Your task to perform on an android device: turn off notifications settings in the gmail app Image 0: 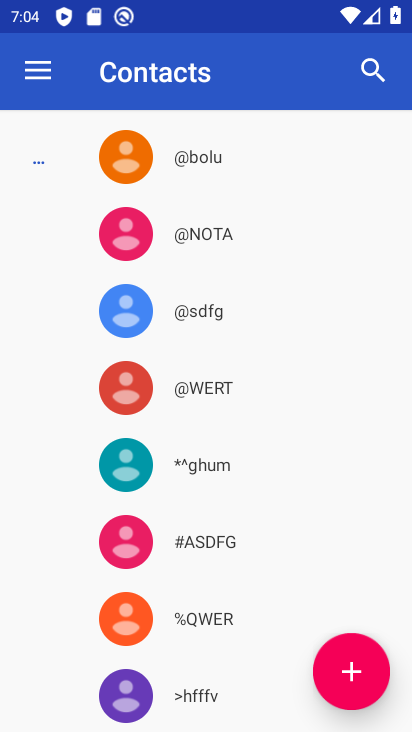
Step 0: press home button
Your task to perform on an android device: turn off notifications settings in the gmail app Image 1: 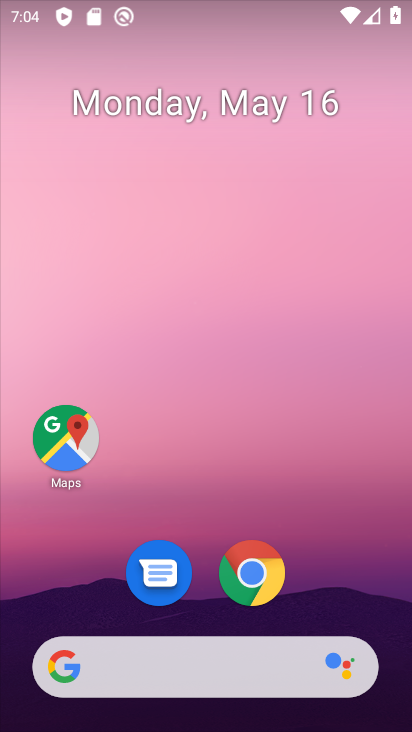
Step 1: drag from (339, 607) to (281, 2)
Your task to perform on an android device: turn off notifications settings in the gmail app Image 2: 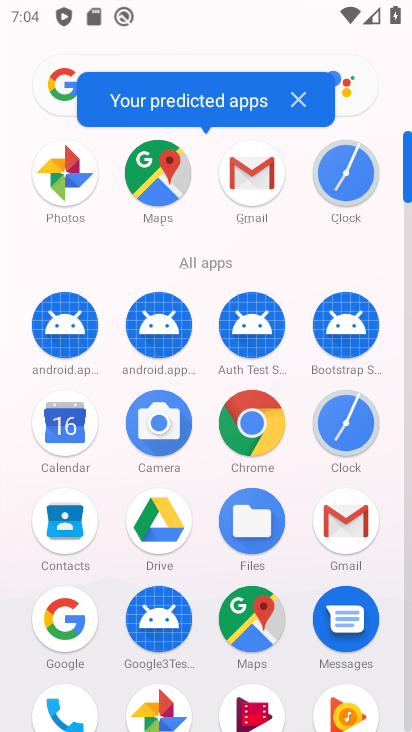
Step 2: click (258, 184)
Your task to perform on an android device: turn off notifications settings in the gmail app Image 3: 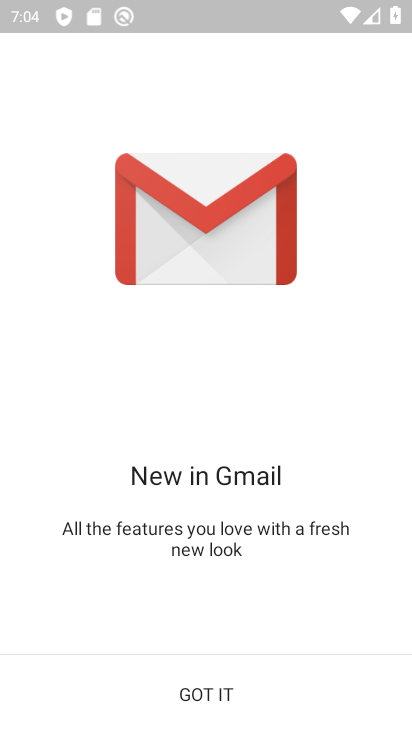
Step 3: click (237, 711)
Your task to perform on an android device: turn off notifications settings in the gmail app Image 4: 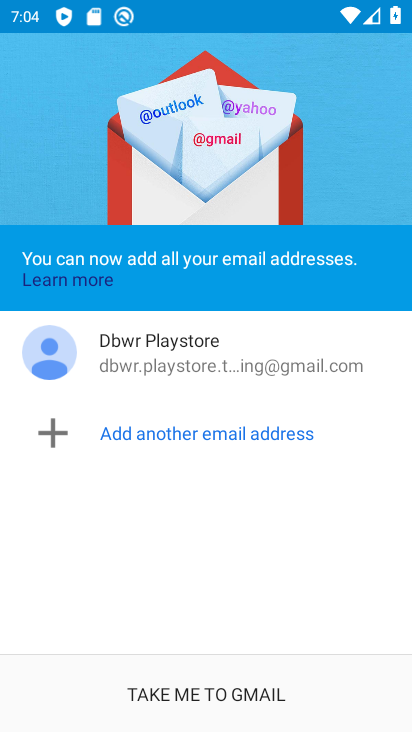
Step 4: click (237, 711)
Your task to perform on an android device: turn off notifications settings in the gmail app Image 5: 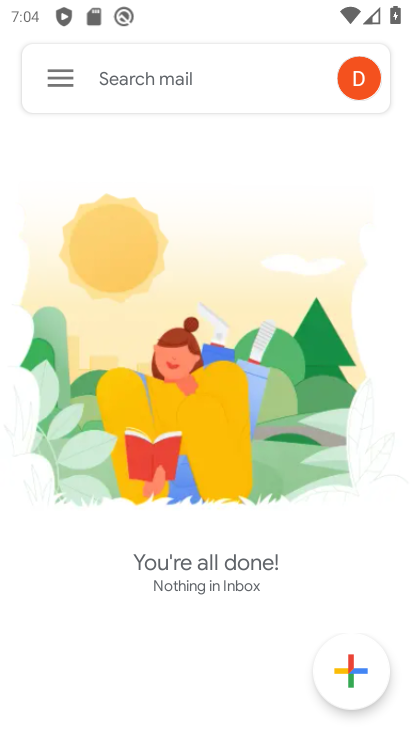
Step 5: click (39, 88)
Your task to perform on an android device: turn off notifications settings in the gmail app Image 6: 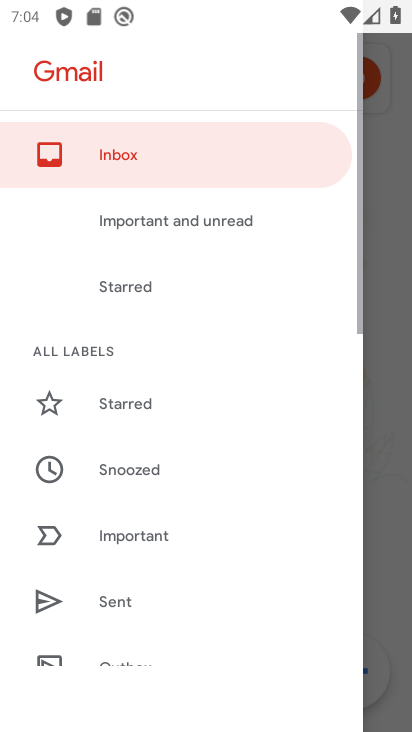
Step 6: drag from (171, 595) to (208, 226)
Your task to perform on an android device: turn off notifications settings in the gmail app Image 7: 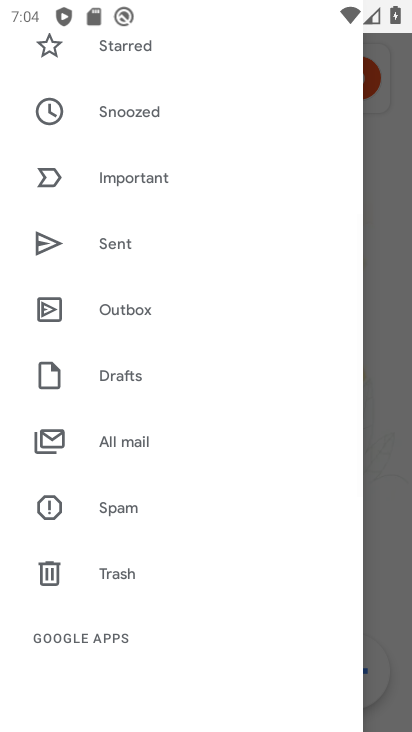
Step 7: drag from (201, 538) to (282, 132)
Your task to perform on an android device: turn off notifications settings in the gmail app Image 8: 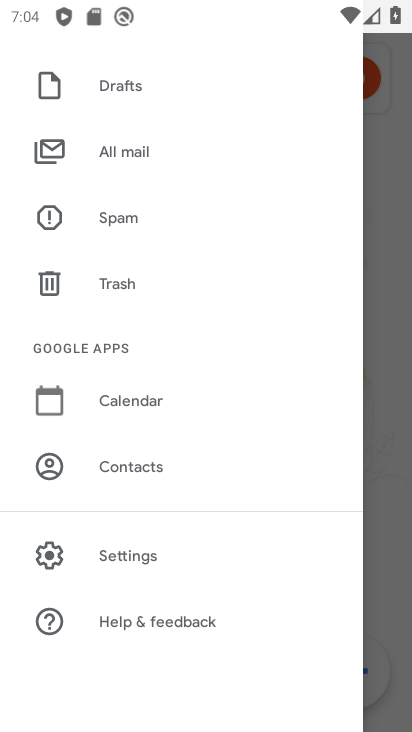
Step 8: click (110, 560)
Your task to perform on an android device: turn off notifications settings in the gmail app Image 9: 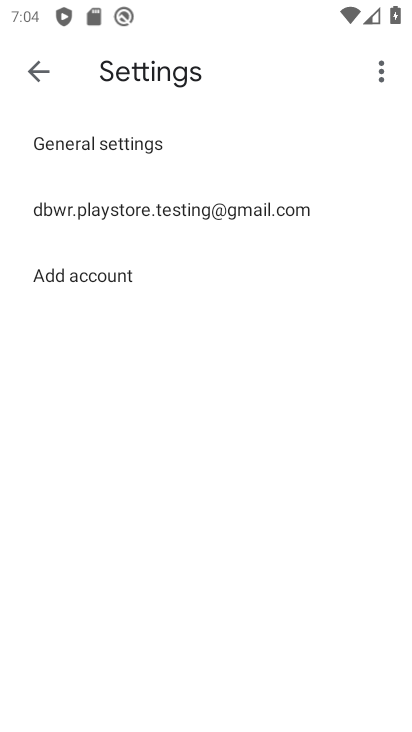
Step 9: click (218, 222)
Your task to perform on an android device: turn off notifications settings in the gmail app Image 10: 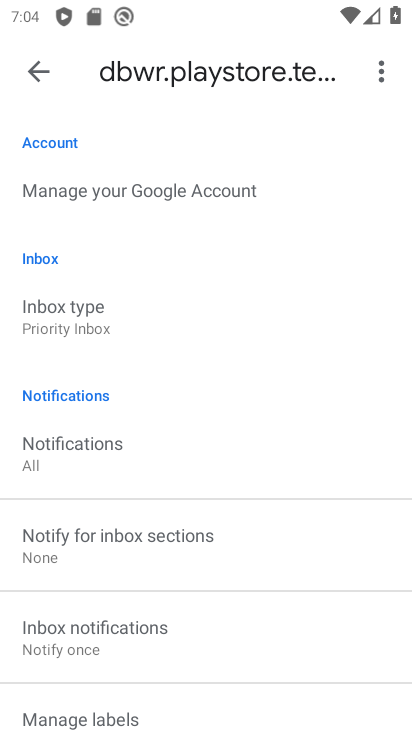
Step 10: click (89, 452)
Your task to perform on an android device: turn off notifications settings in the gmail app Image 11: 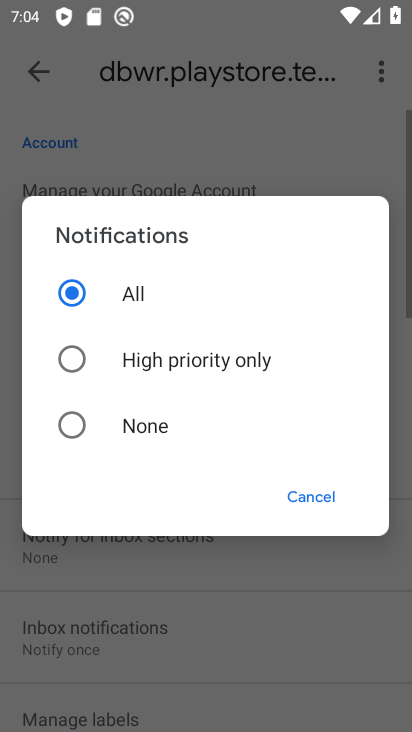
Step 11: click (87, 441)
Your task to perform on an android device: turn off notifications settings in the gmail app Image 12: 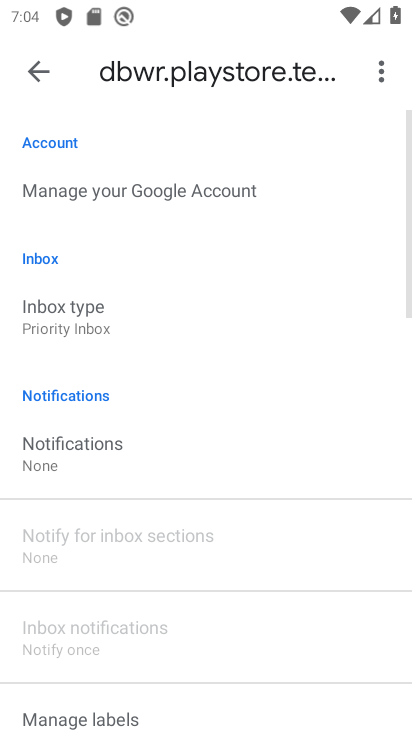
Step 12: task complete